Your task to perform on an android device: change the clock display to analog Image 0: 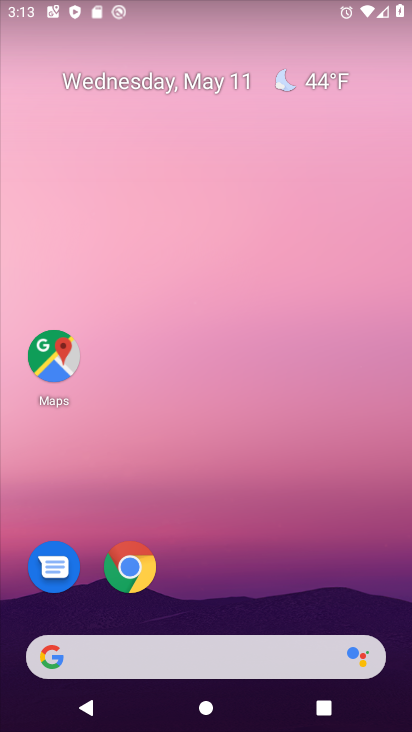
Step 0: drag from (254, 554) to (254, 54)
Your task to perform on an android device: change the clock display to analog Image 1: 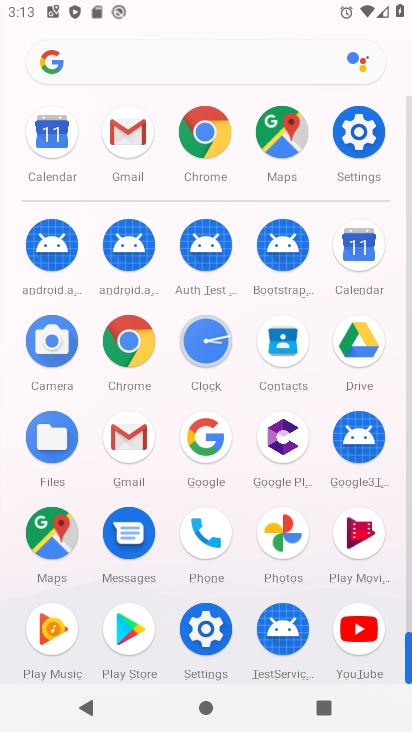
Step 1: drag from (7, 570) to (12, 253)
Your task to perform on an android device: change the clock display to analog Image 2: 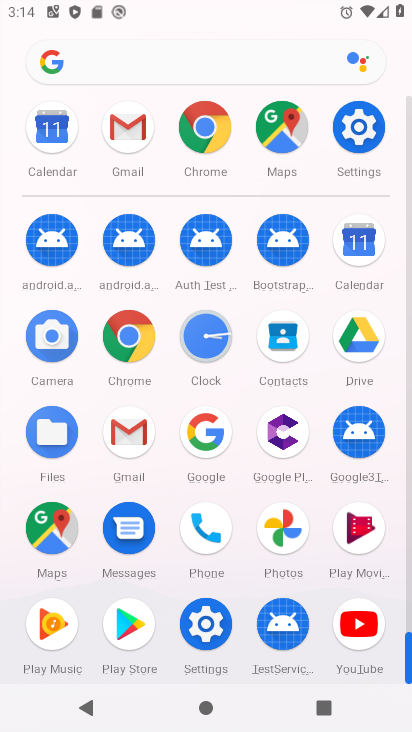
Step 2: drag from (14, 553) to (2, 321)
Your task to perform on an android device: change the clock display to analog Image 3: 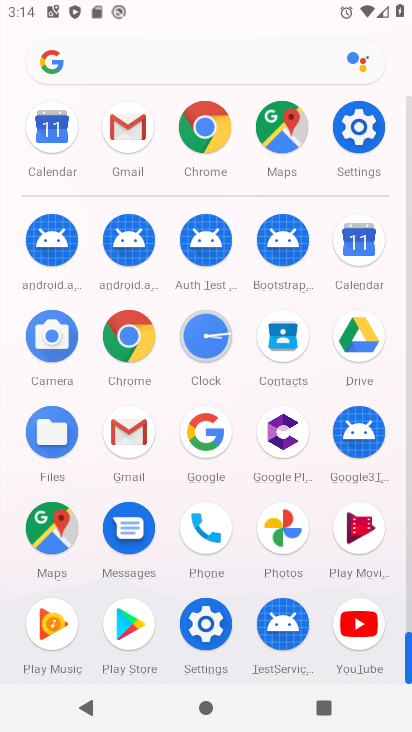
Step 3: click (206, 334)
Your task to perform on an android device: change the clock display to analog Image 4: 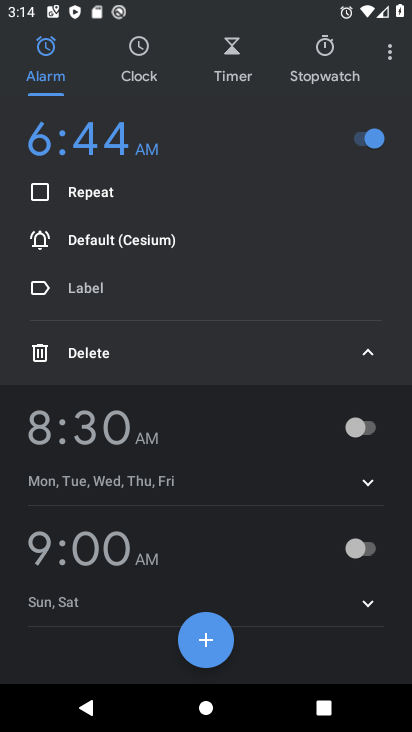
Step 4: drag from (388, 46) to (313, 110)
Your task to perform on an android device: change the clock display to analog Image 5: 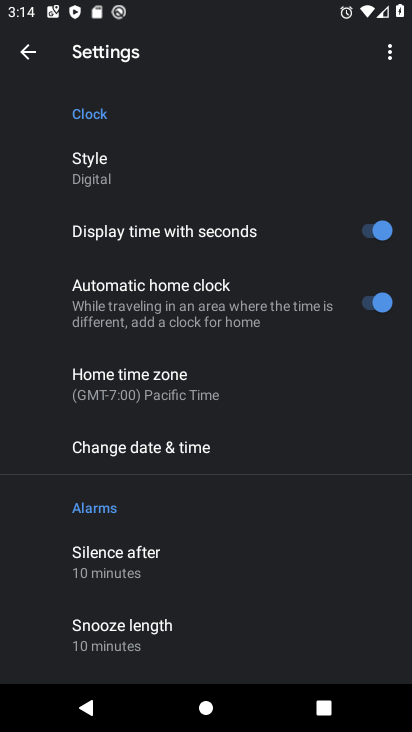
Step 5: click (133, 162)
Your task to perform on an android device: change the clock display to analog Image 6: 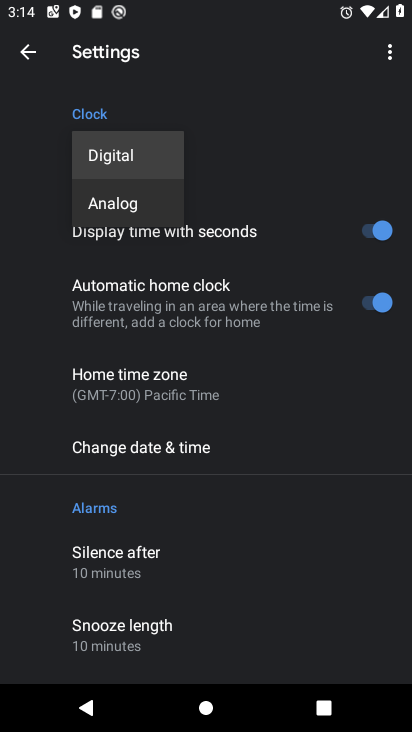
Step 6: click (155, 191)
Your task to perform on an android device: change the clock display to analog Image 7: 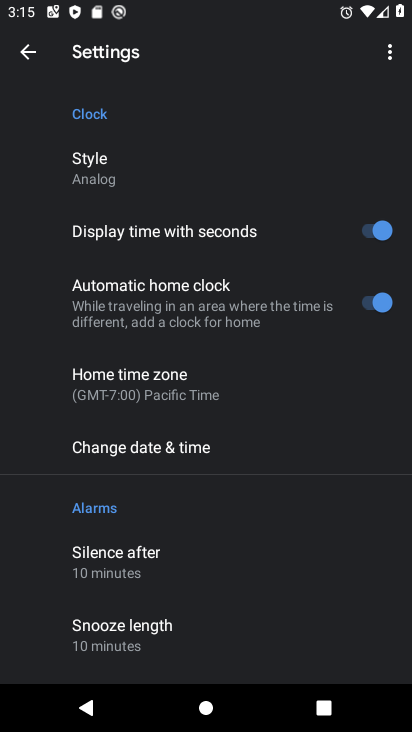
Step 7: task complete